Your task to perform on an android device: Go to privacy settings Image 0: 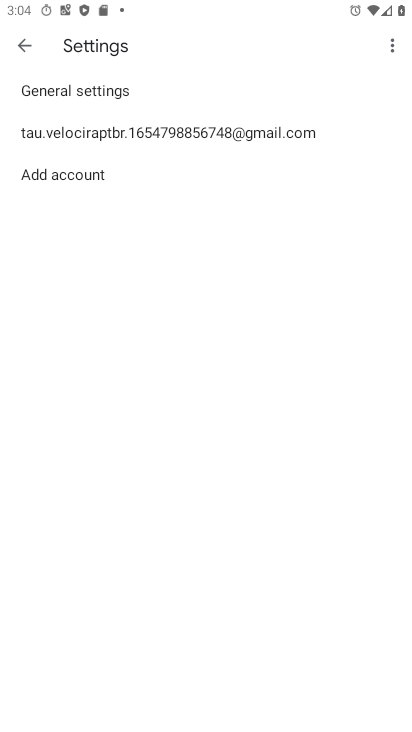
Step 0: press home button
Your task to perform on an android device: Go to privacy settings Image 1: 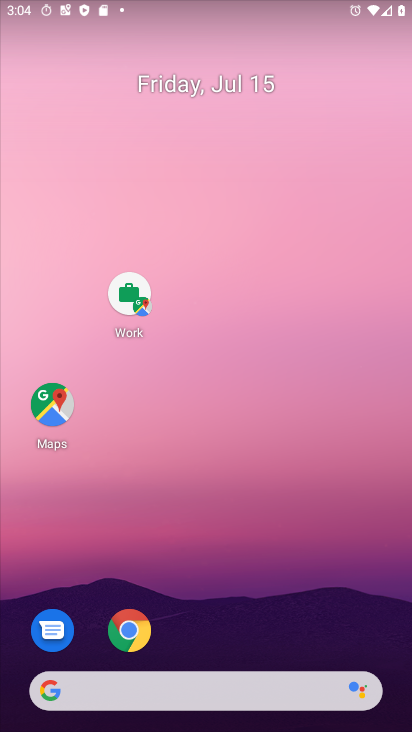
Step 1: drag from (229, 640) to (234, 124)
Your task to perform on an android device: Go to privacy settings Image 2: 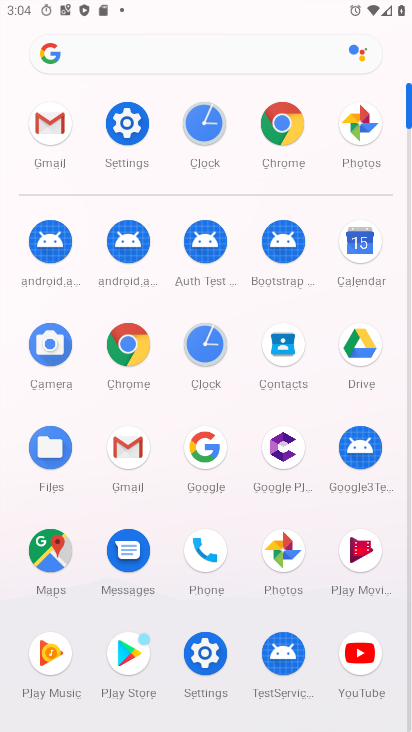
Step 2: click (120, 127)
Your task to perform on an android device: Go to privacy settings Image 3: 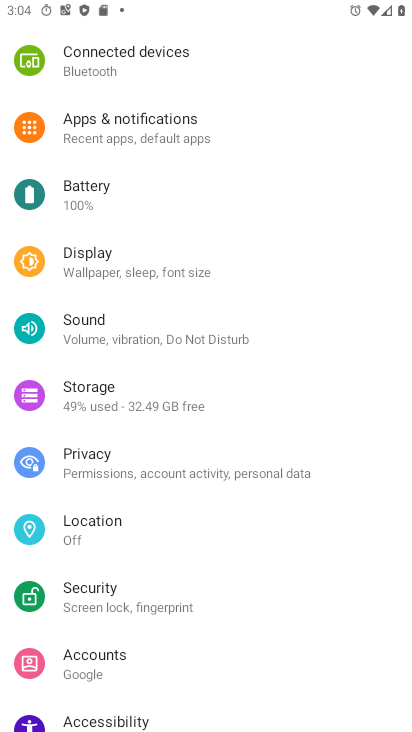
Step 3: click (117, 461)
Your task to perform on an android device: Go to privacy settings Image 4: 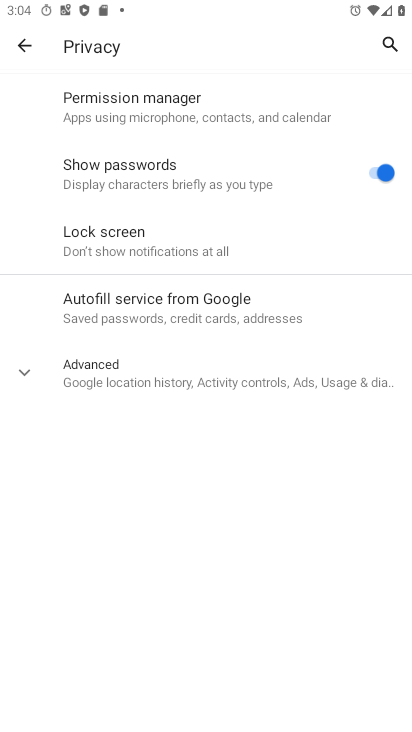
Step 4: task complete